Your task to perform on an android device: toggle priority inbox in the gmail app Image 0: 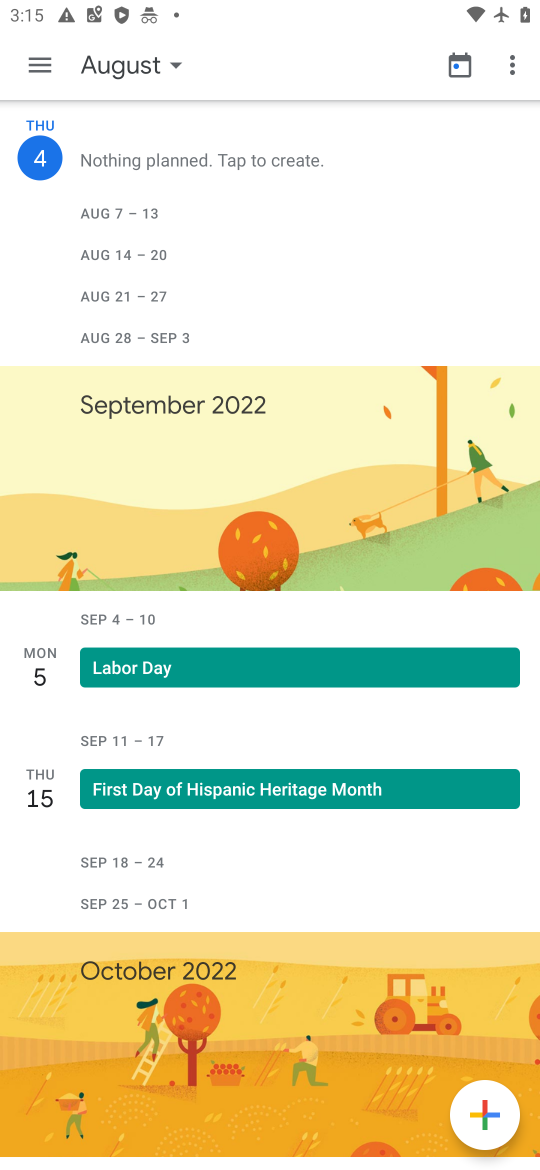
Step 0: press back button
Your task to perform on an android device: toggle priority inbox in the gmail app Image 1: 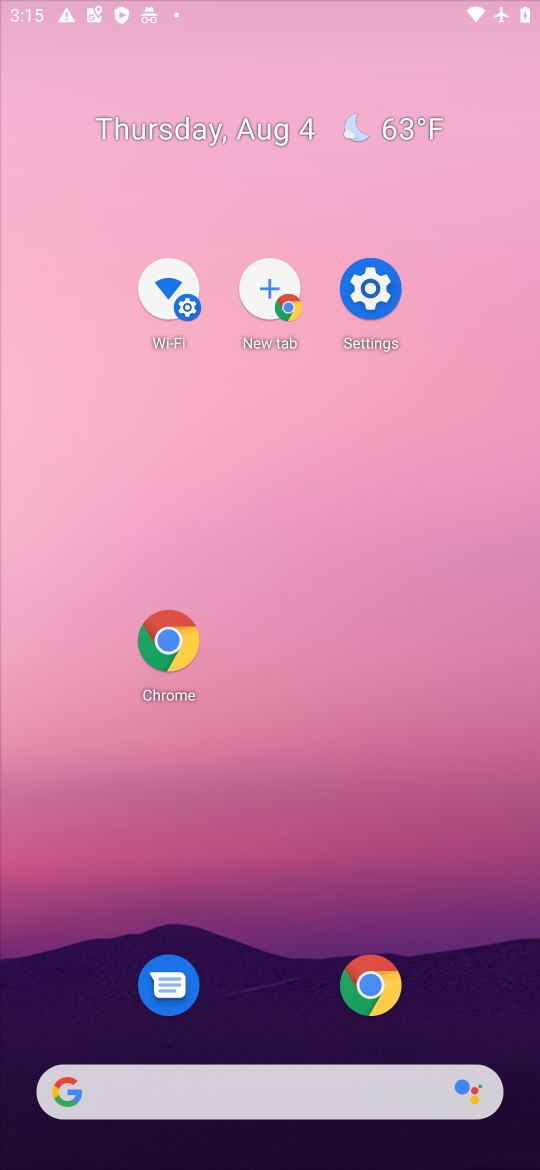
Step 1: drag from (238, 1071) to (251, 402)
Your task to perform on an android device: toggle priority inbox in the gmail app Image 2: 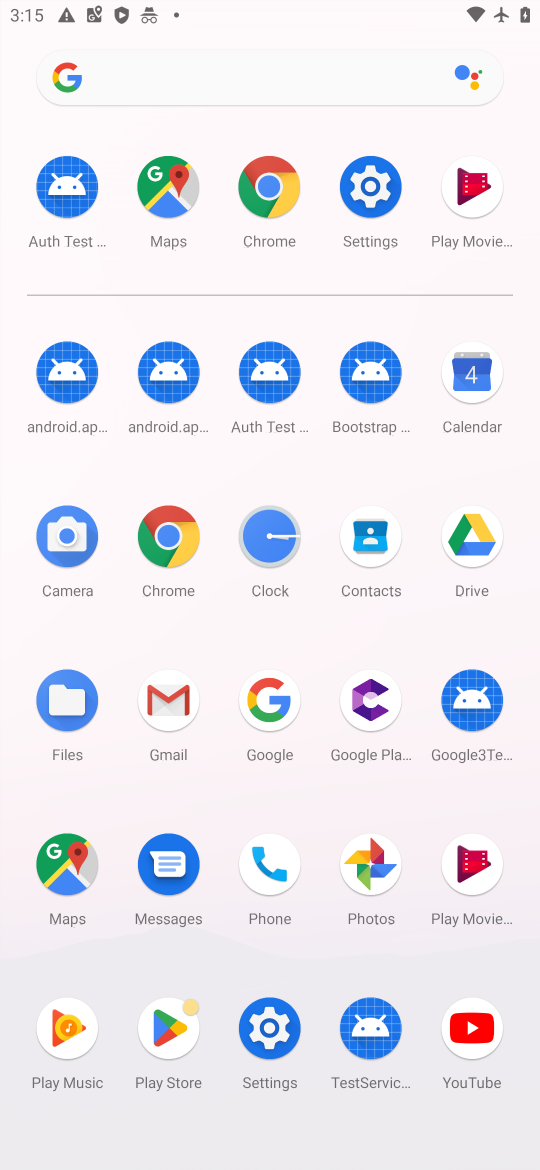
Step 2: click (177, 684)
Your task to perform on an android device: toggle priority inbox in the gmail app Image 3: 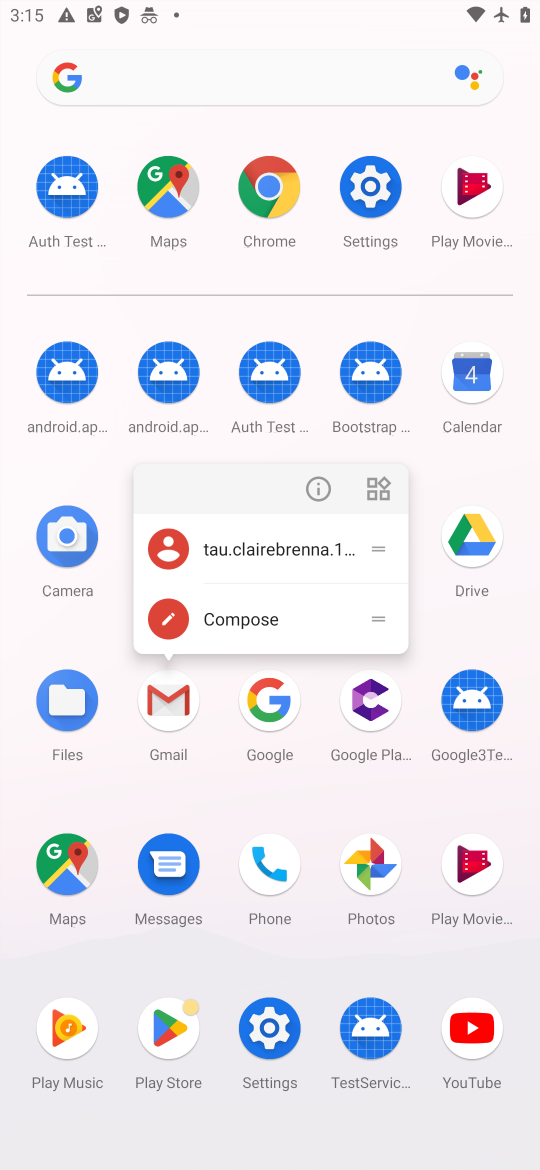
Step 3: click (245, 557)
Your task to perform on an android device: toggle priority inbox in the gmail app Image 4: 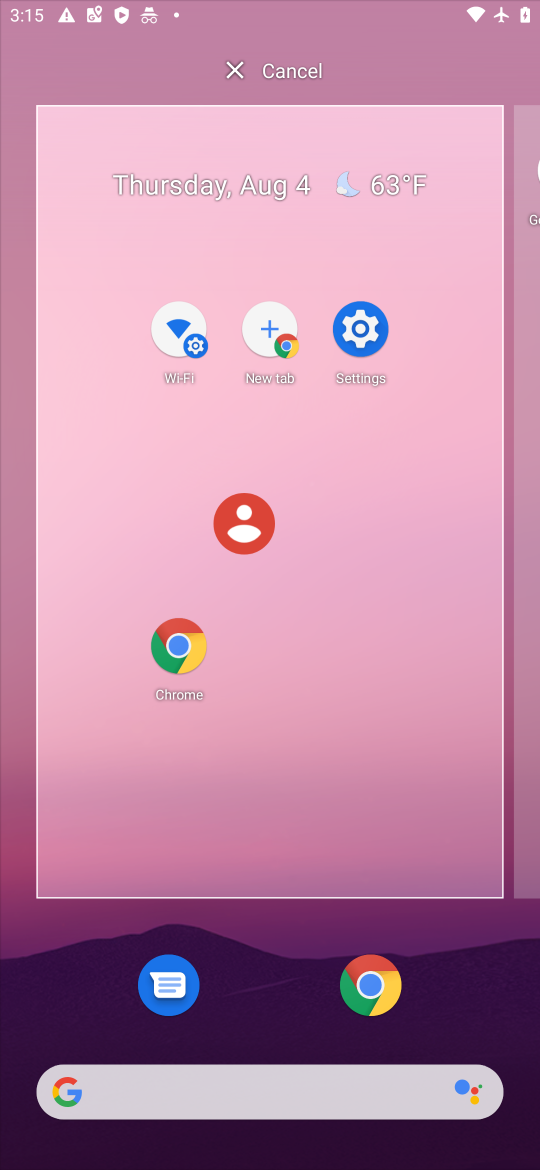
Step 4: click (245, 557)
Your task to perform on an android device: toggle priority inbox in the gmail app Image 5: 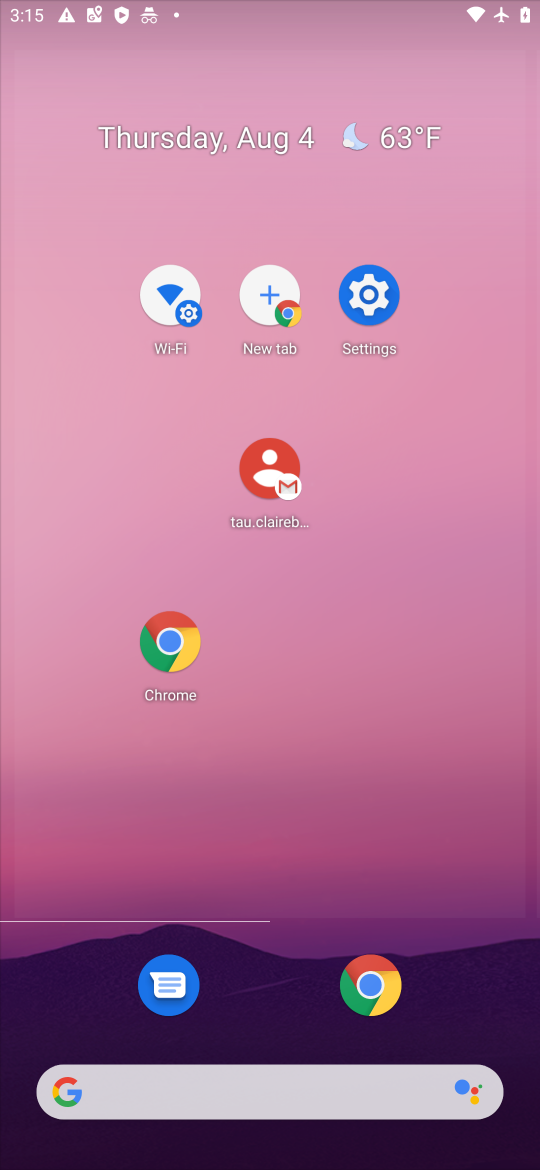
Step 5: drag from (283, 981) to (186, 284)
Your task to perform on an android device: toggle priority inbox in the gmail app Image 6: 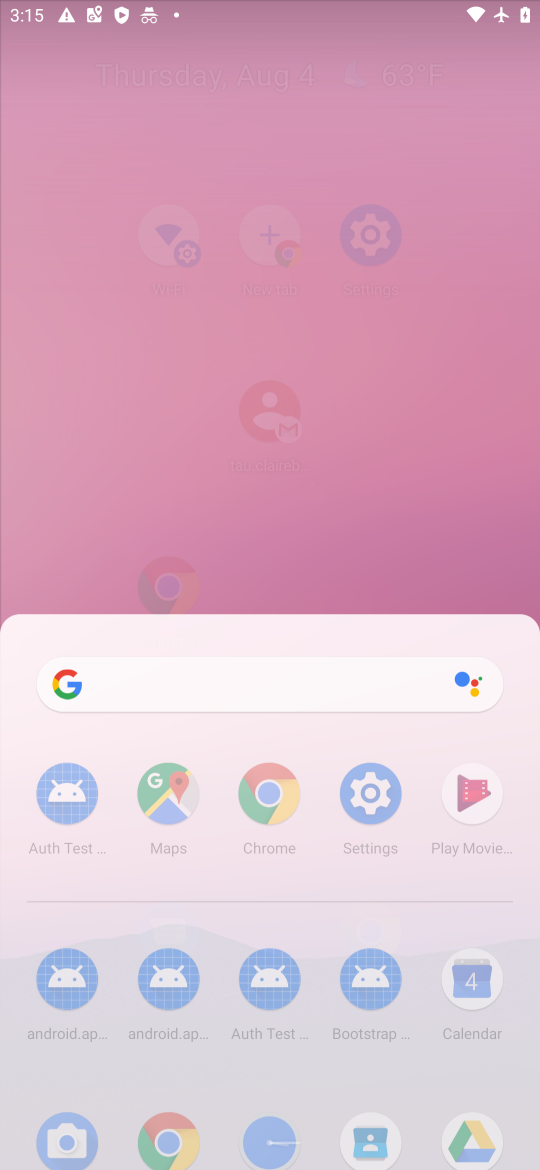
Step 6: drag from (306, 1031) to (260, 394)
Your task to perform on an android device: toggle priority inbox in the gmail app Image 7: 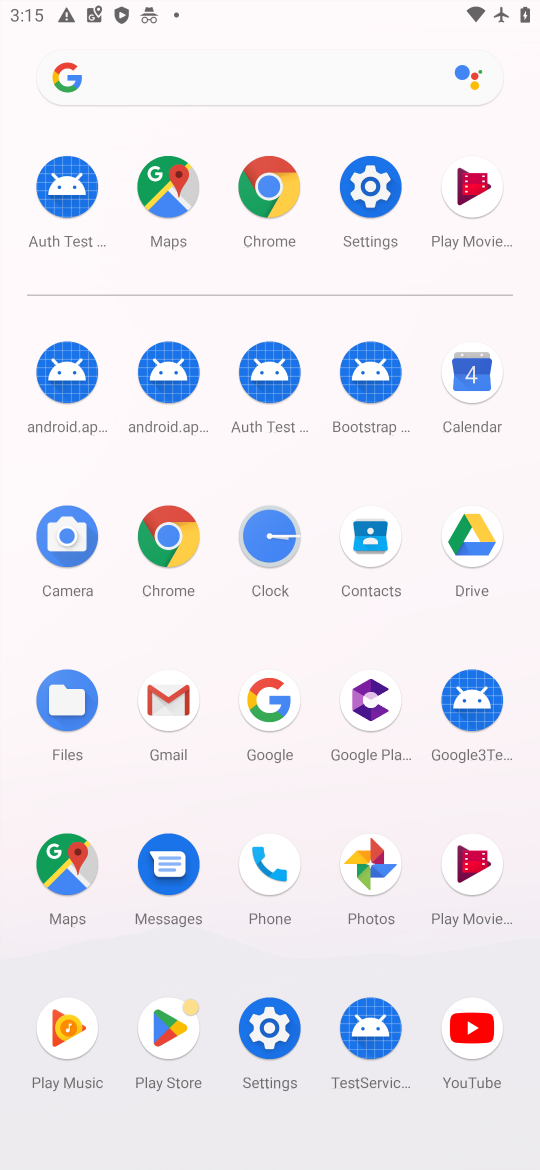
Step 7: click (165, 700)
Your task to perform on an android device: toggle priority inbox in the gmail app Image 8: 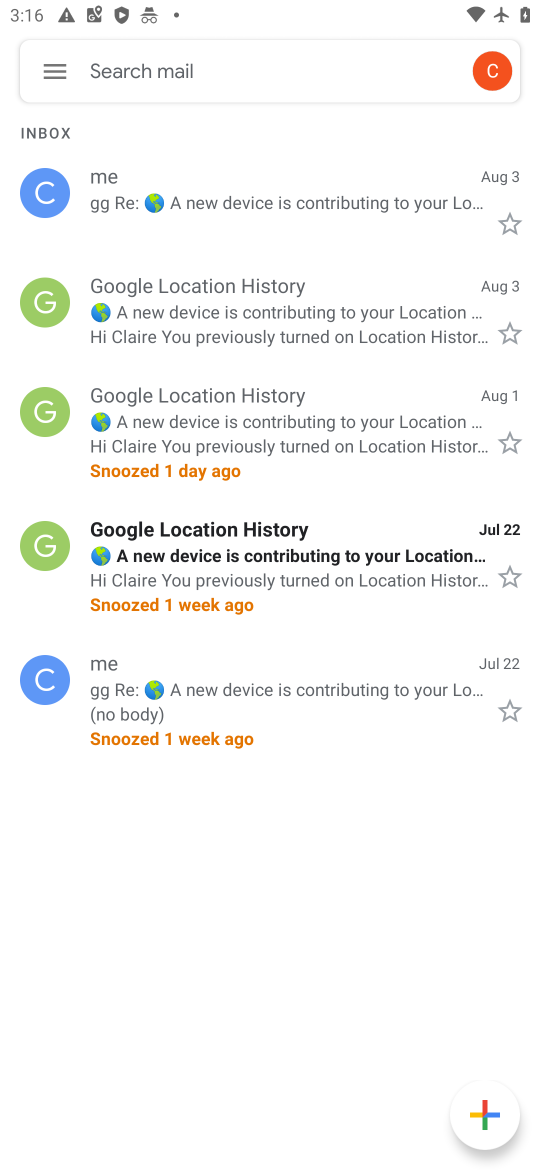
Step 8: click (69, 71)
Your task to perform on an android device: toggle priority inbox in the gmail app Image 9: 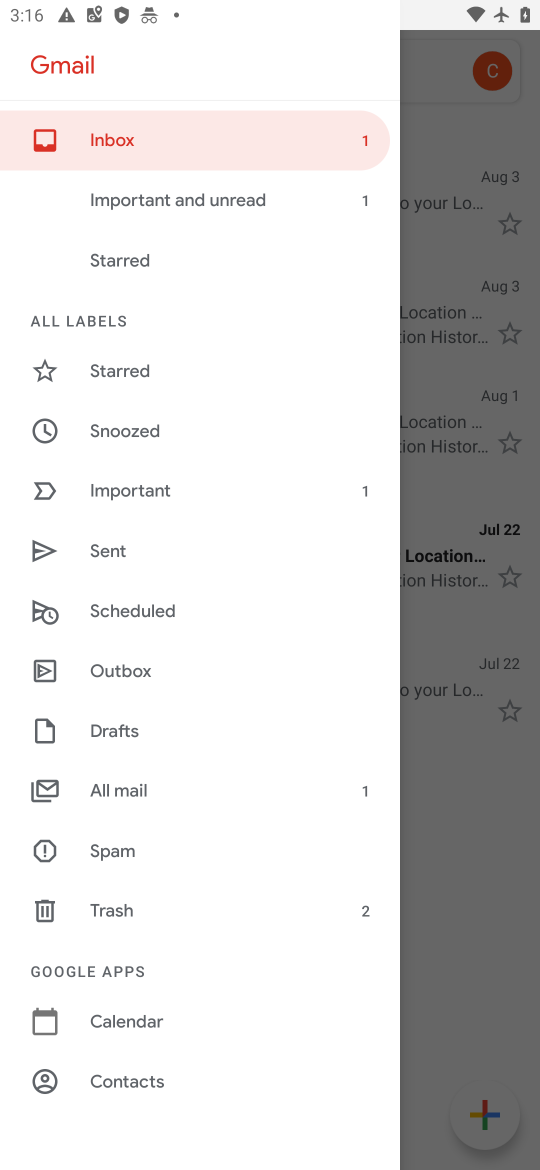
Step 9: drag from (108, 957) to (48, 613)
Your task to perform on an android device: toggle priority inbox in the gmail app Image 10: 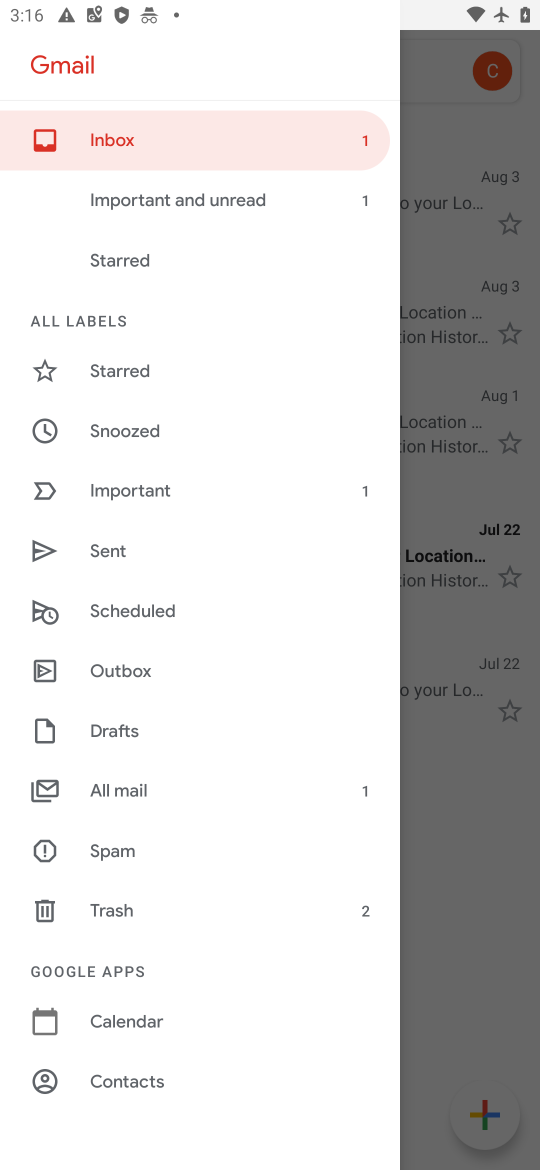
Step 10: drag from (191, 877) to (153, 564)
Your task to perform on an android device: toggle priority inbox in the gmail app Image 11: 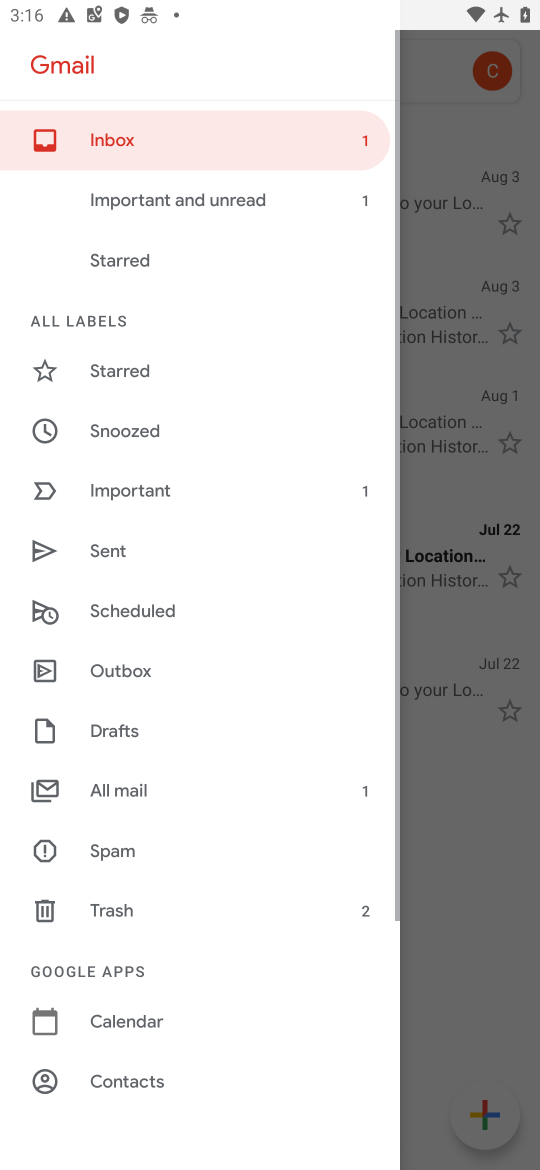
Step 11: drag from (241, 977) to (171, 467)
Your task to perform on an android device: toggle priority inbox in the gmail app Image 12: 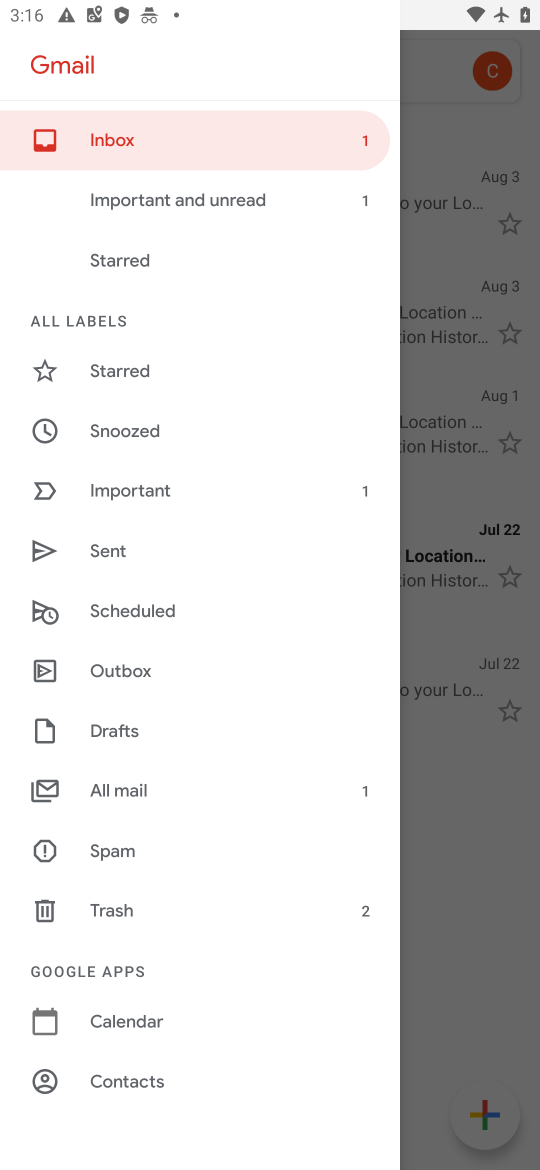
Step 12: drag from (143, 1003) to (115, 508)
Your task to perform on an android device: toggle priority inbox in the gmail app Image 13: 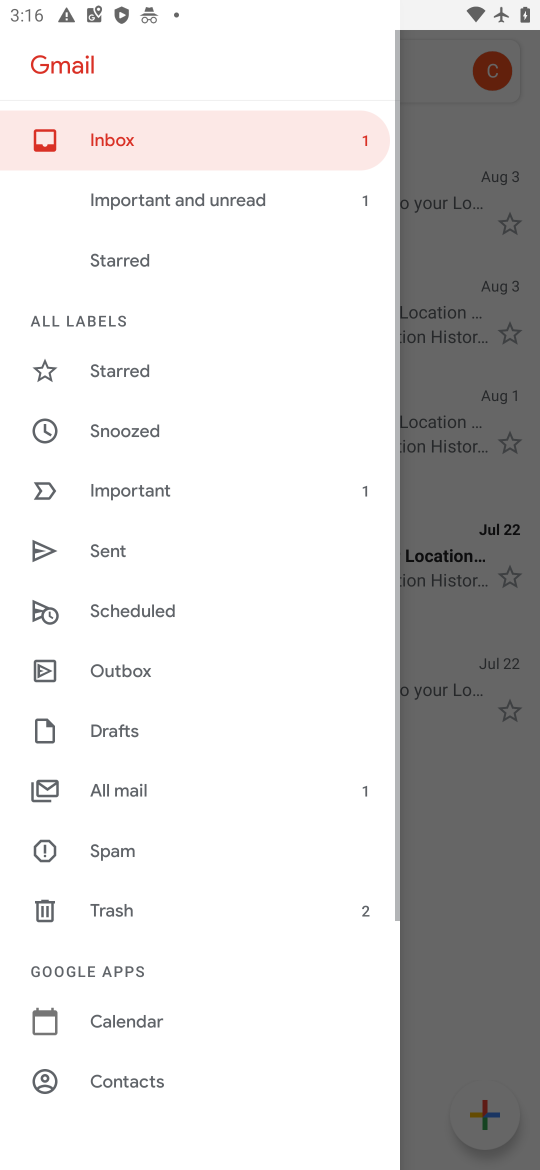
Step 13: drag from (172, 1063) to (125, 425)
Your task to perform on an android device: toggle priority inbox in the gmail app Image 14: 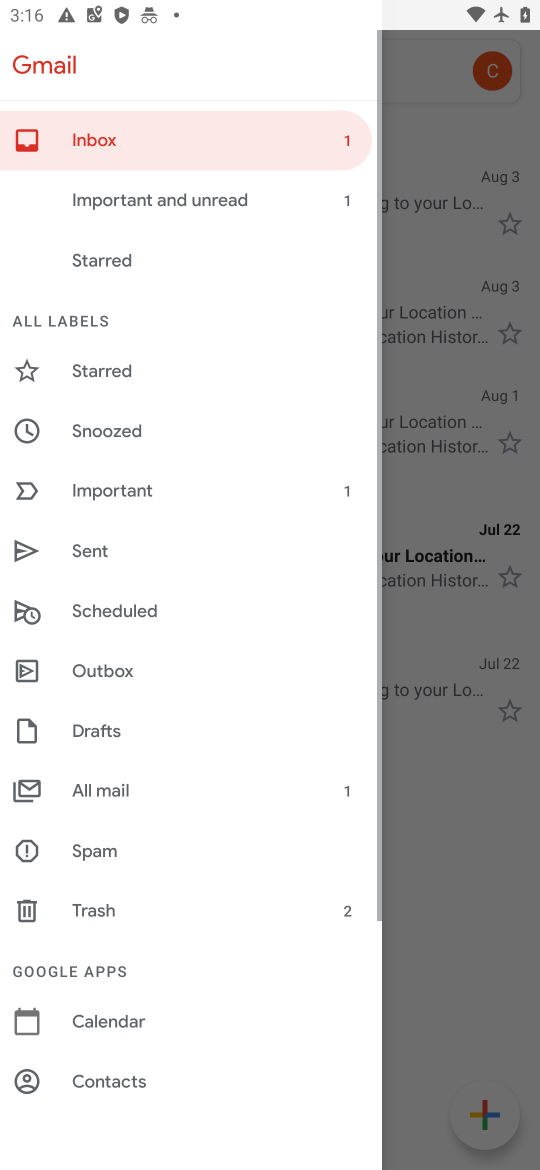
Step 14: drag from (189, 709) to (170, 350)
Your task to perform on an android device: toggle priority inbox in the gmail app Image 15: 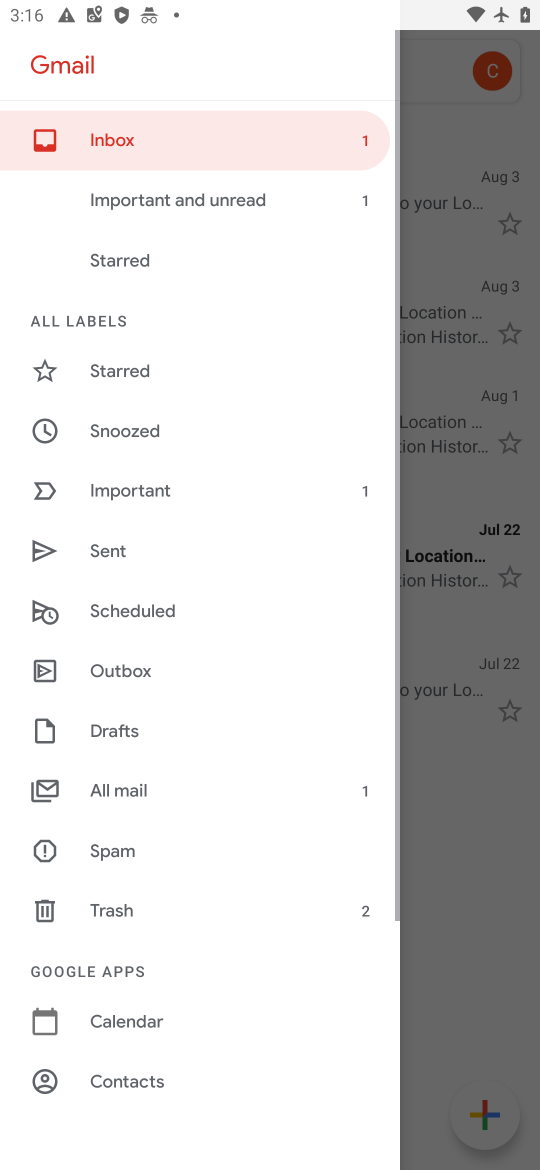
Step 15: drag from (151, 848) to (129, 326)
Your task to perform on an android device: toggle priority inbox in the gmail app Image 16: 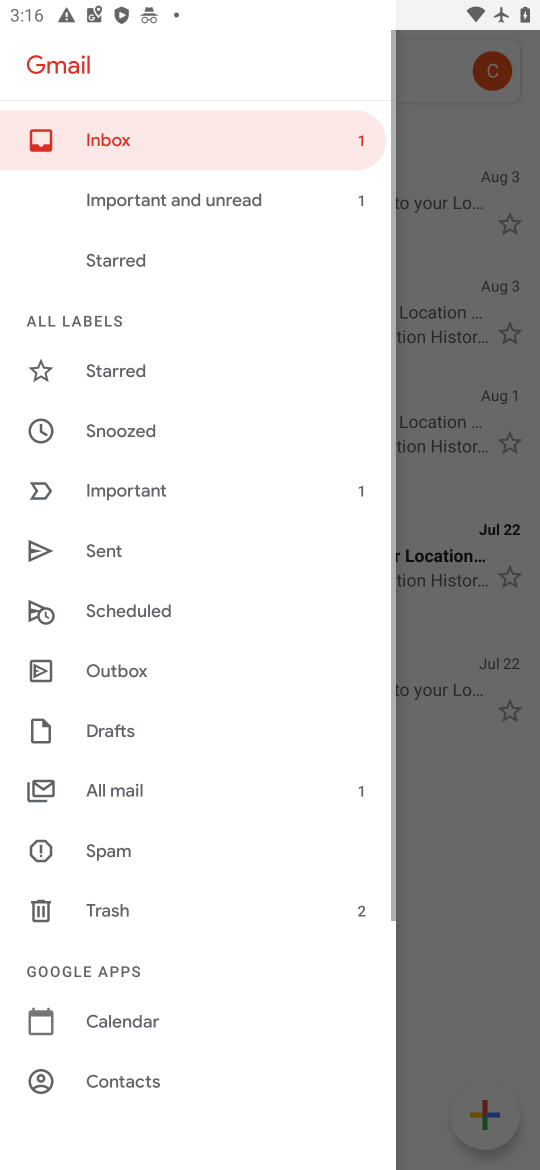
Step 16: drag from (140, 918) to (175, 564)
Your task to perform on an android device: toggle priority inbox in the gmail app Image 17: 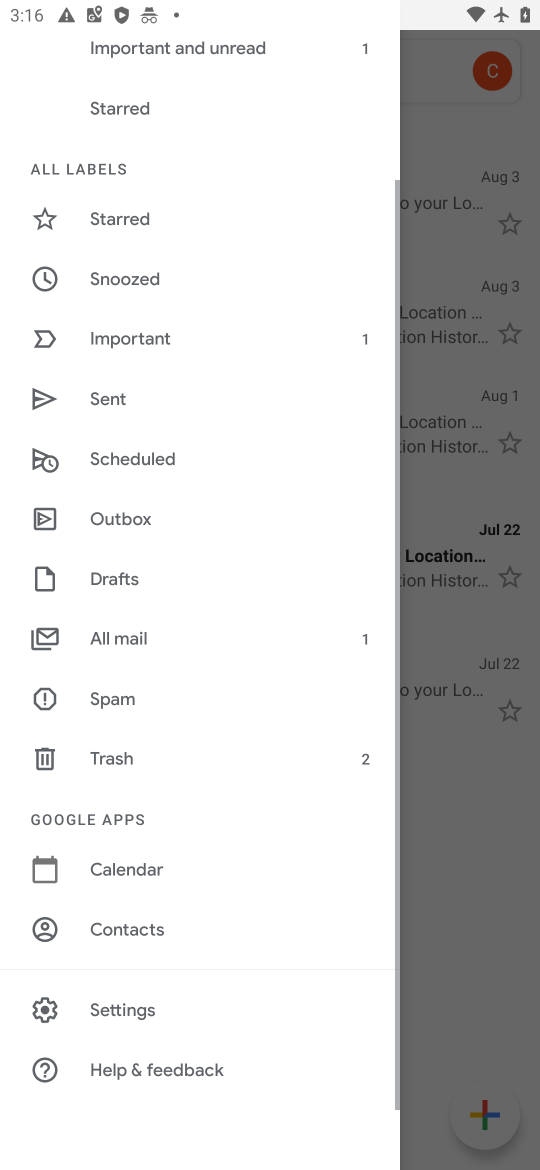
Step 17: drag from (150, 1021) to (186, 428)
Your task to perform on an android device: toggle priority inbox in the gmail app Image 18: 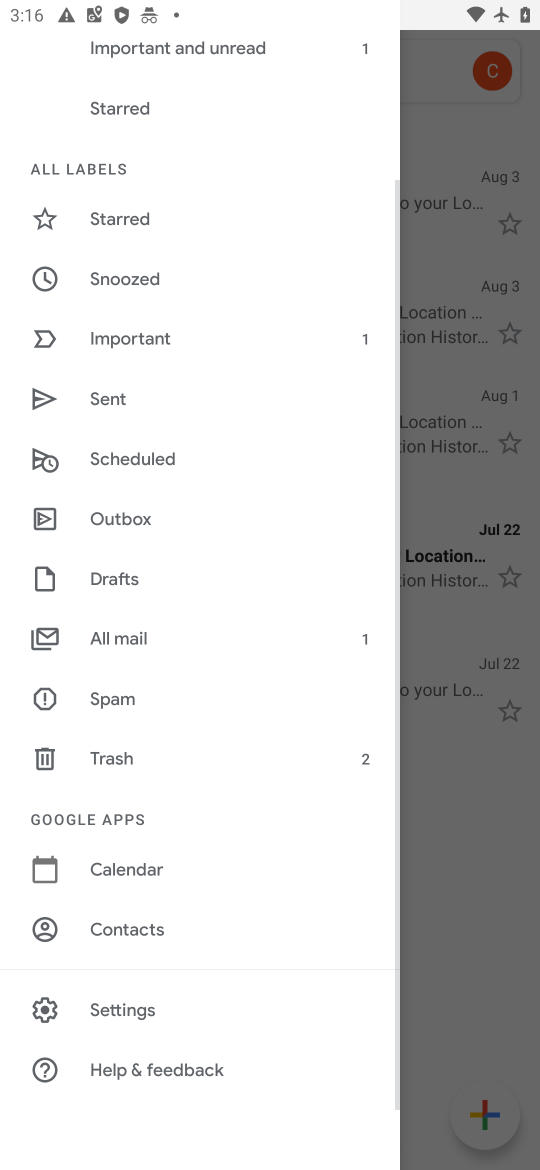
Step 18: click (123, 1008)
Your task to perform on an android device: toggle priority inbox in the gmail app Image 19: 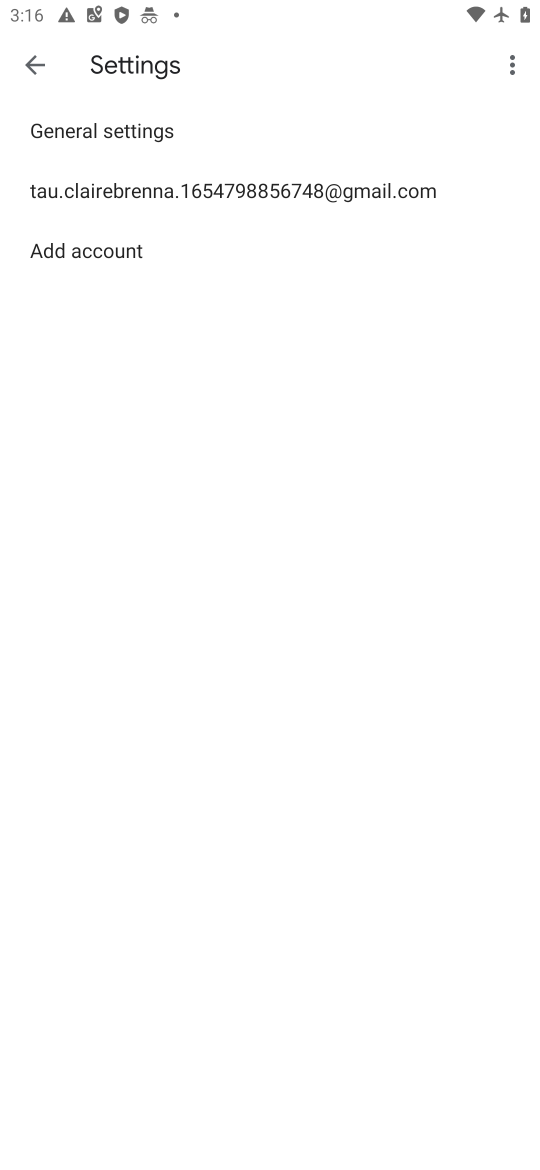
Step 19: click (118, 176)
Your task to perform on an android device: toggle priority inbox in the gmail app Image 20: 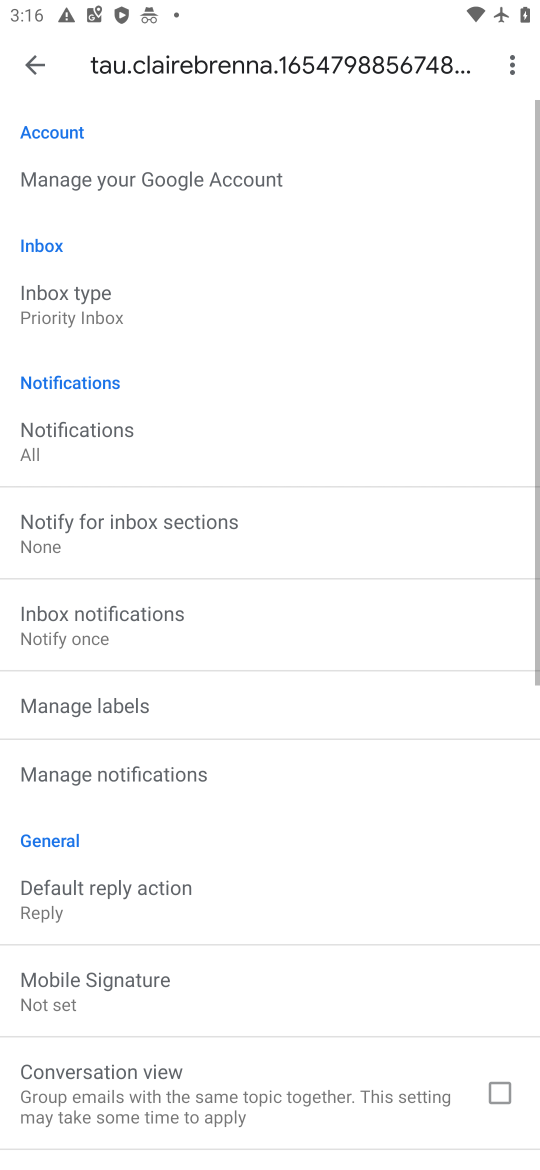
Step 20: click (115, 182)
Your task to perform on an android device: toggle priority inbox in the gmail app Image 21: 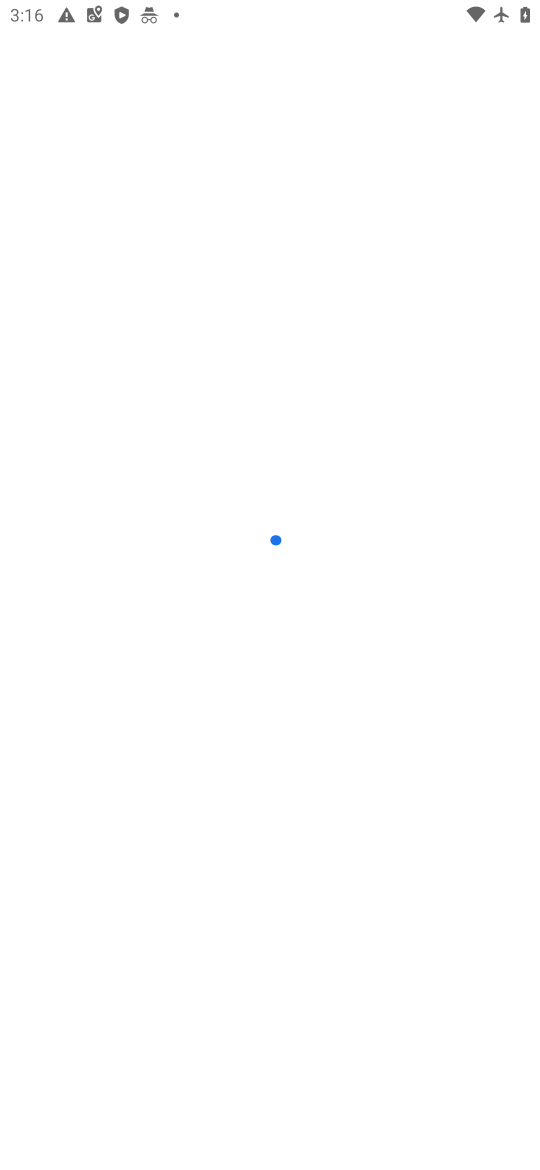
Step 21: task complete